Your task to perform on an android device: What is the news today? Image 0: 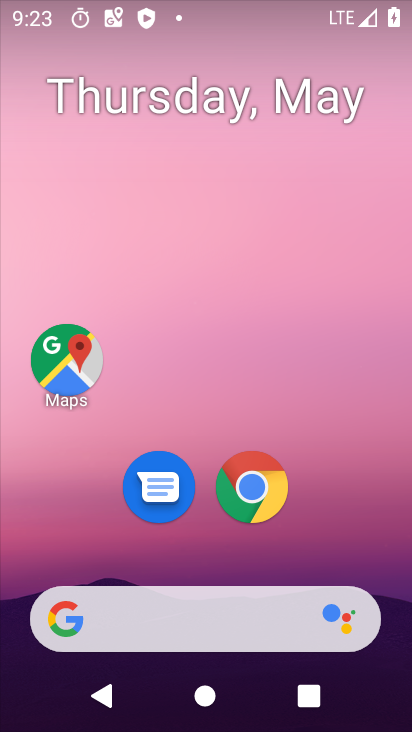
Step 0: drag from (216, 610) to (303, 226)
Your task to perform on an android device: What is the news today? Image 1: 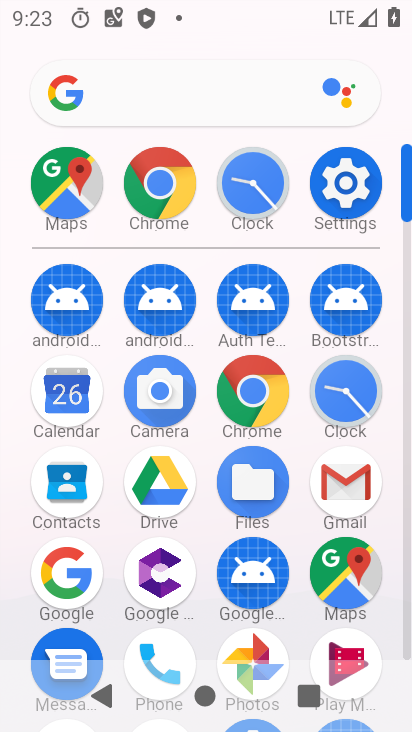
Step 1: click (69, 579)
Your task to perform on an android device: What is the news today? Image 2: 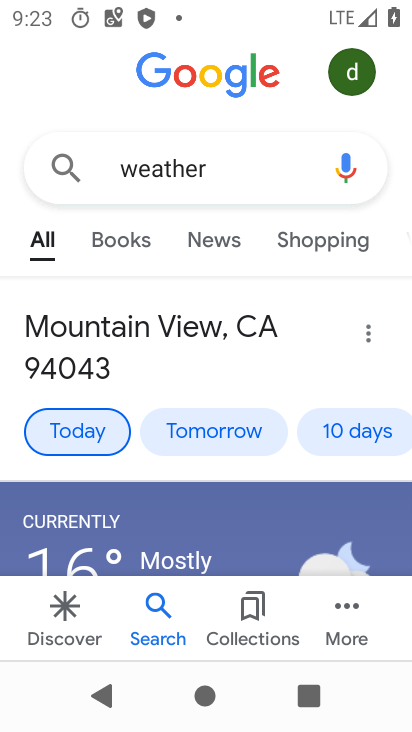
Step 2: click (251, 165)
Your task to perform on an android device: What is the news today? Image 3: 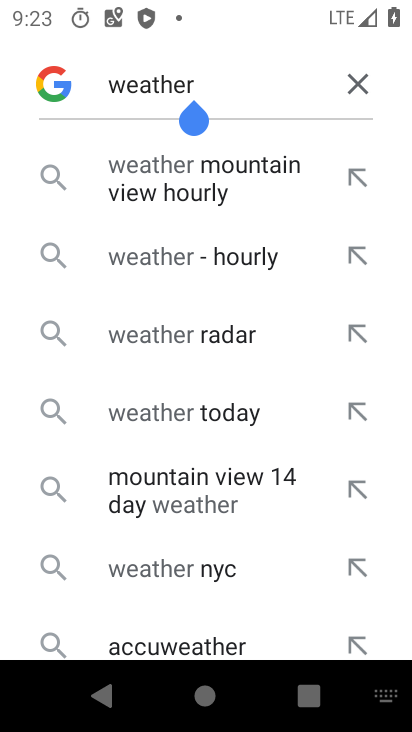
Step 3: click (373, 83)
Your task to perform on an android device: What is the news today? Image 4: 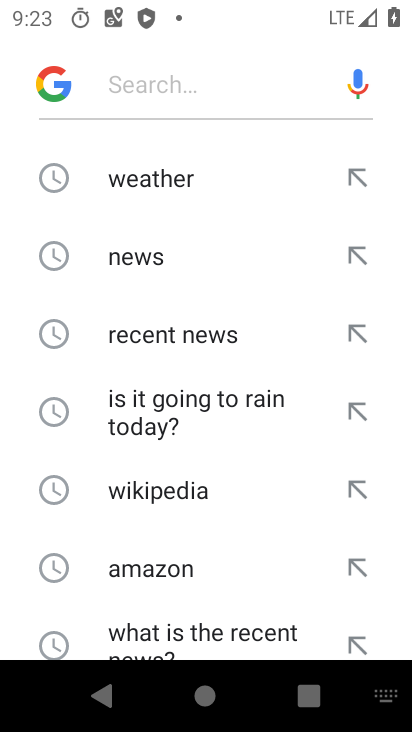
Step 4: click (203, 263)
Your task to perform on an android device: What is the news today? Image 5: 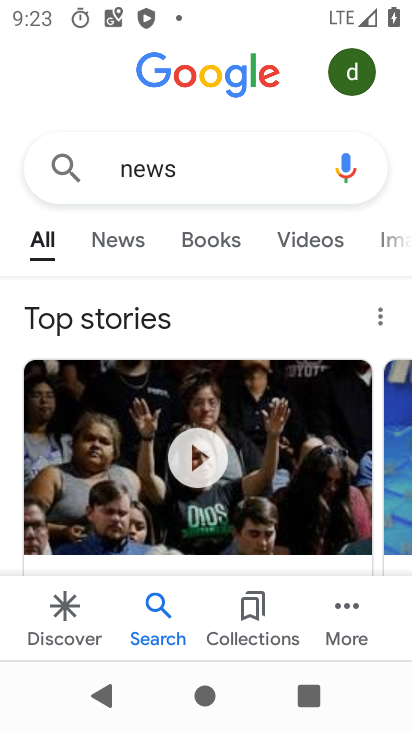
Step 5: click (112, 255)
Your task to perform on an android device: What is the news today? Image 6: 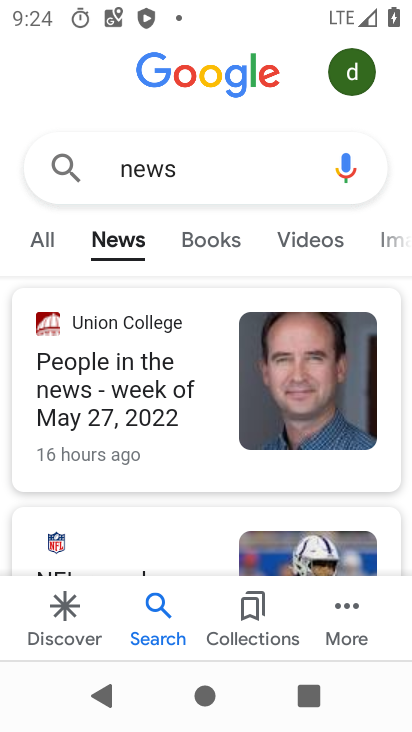
Step 6: task complete